Your task to perform on an android device: What's the weather going to be tomorrow? Image 0: 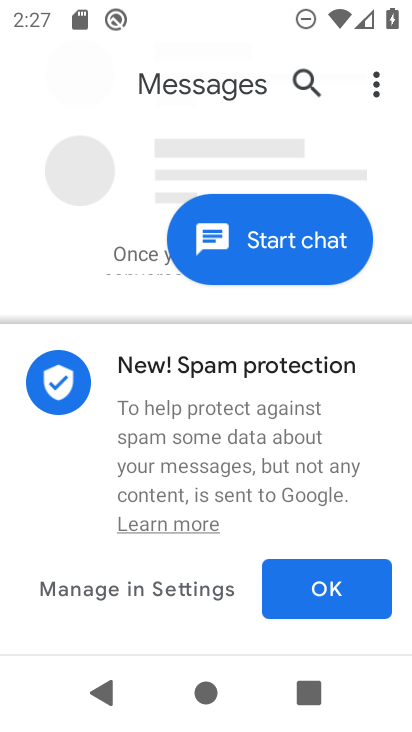
Step 0: press home button
Your task to perform on an android device: What's the weather going to be tomorrow? Image 1: 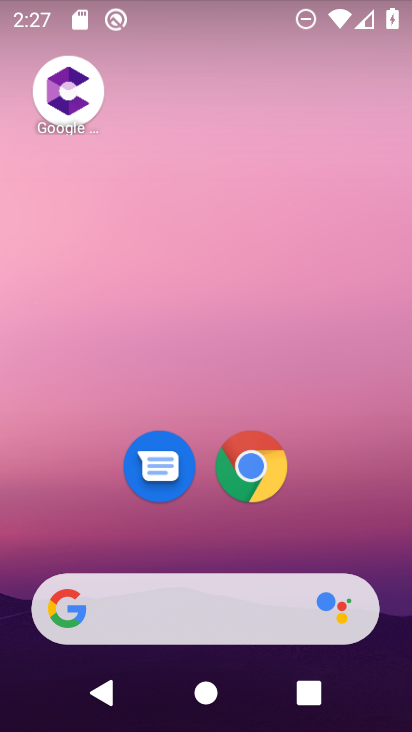
Step 1: drag from (182, 622) to (254, 378)
Your task to perform on an android device: What's the weather going to be tomorrow? Image 2: 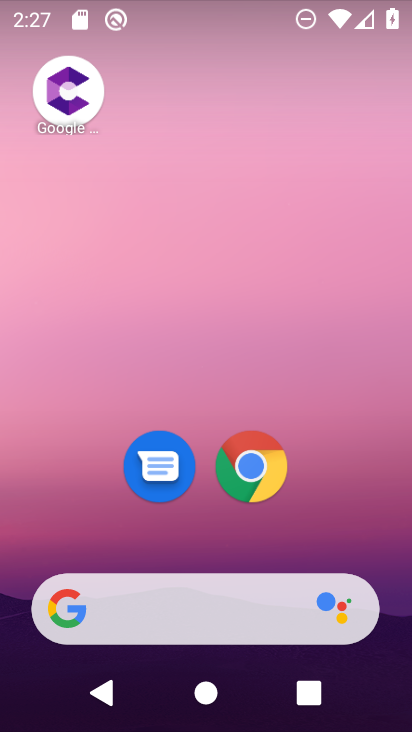
Step 2: drag from (193, 542) to (265, 82)
Your task to perform on an android device: What's the weather going to be tomorrow? Image 3: 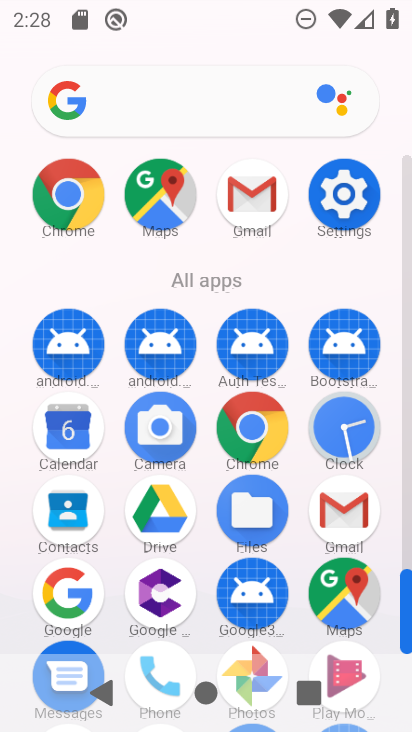
Step 3: click (157, 204)
Your task to perform on an android device: What's the weather going to be tomorrow? Image 4: 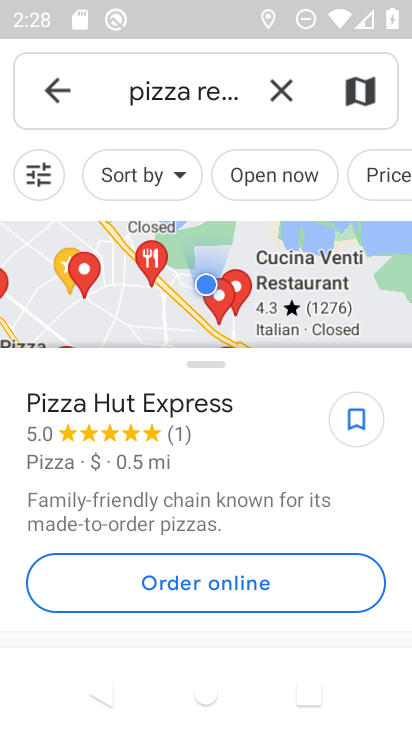
Step 4: click (276, 93)
Your task to perform on an android device: What's the weather going to be tomorrow? Image 5: 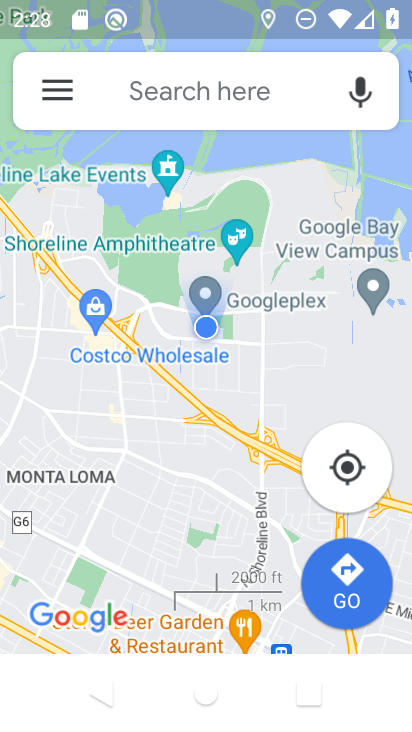
Step 5: click (216, 97)
Your task to perform on an android device: What's the weather going to be tomorrow? Image 6: 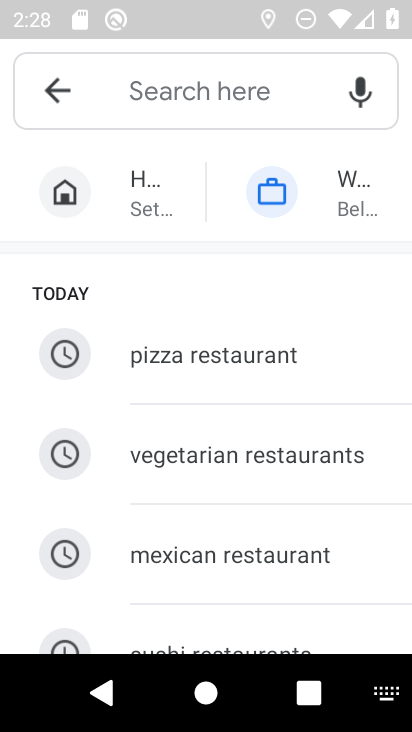
Step 6: press home button
Your task to perform on an android device: What's the weather going to be tomorrow? Image 7: 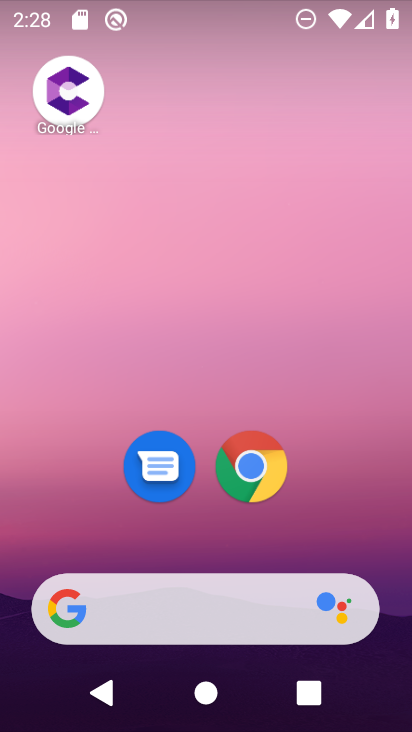
Step 7: drag from (225, 527) to (273, 304)
Your task to perform on an android device: What's the weather going to be tomorrow? Image 8: 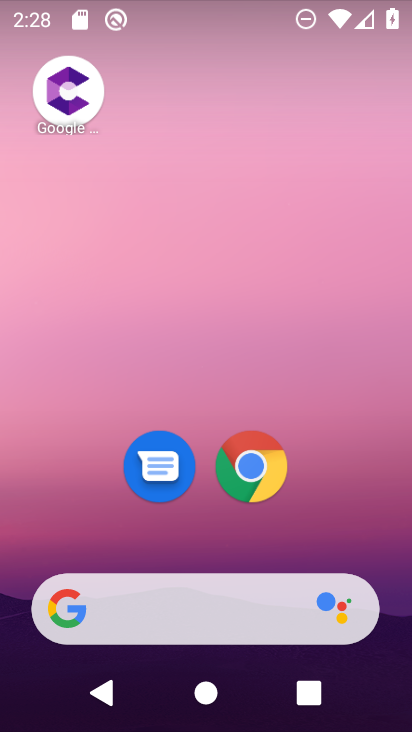
Step 8: drag from (214, 545) to (191, 27)
Your task to perform on an android device: What's the weather going to be tomorrow? Image 9: 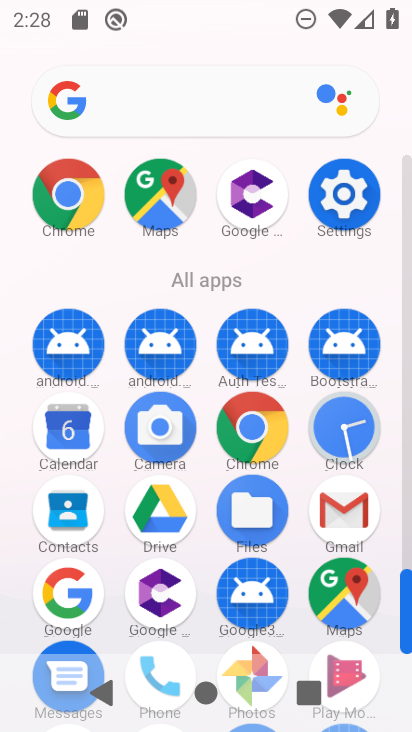
Step 9: click (160, 211)
Your task to perform on an android device: What's the weather going to be tomorrow? Image 10: 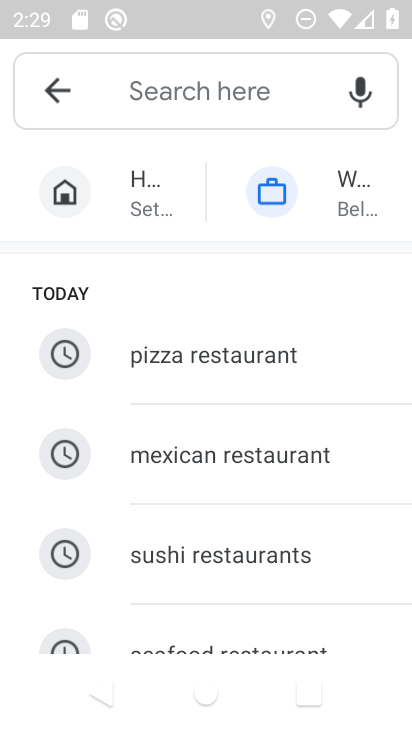
Step 10: press home button
Your task to perform on an android device: What's the weather going to be tomorrow? Image 11: 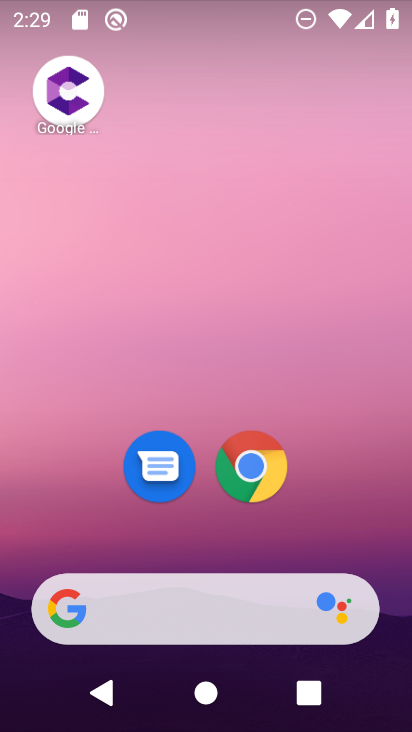
Step 11: click (182, 627)
Your task to perform on an android device: What's the weather going to be tomorrow? Image 12: 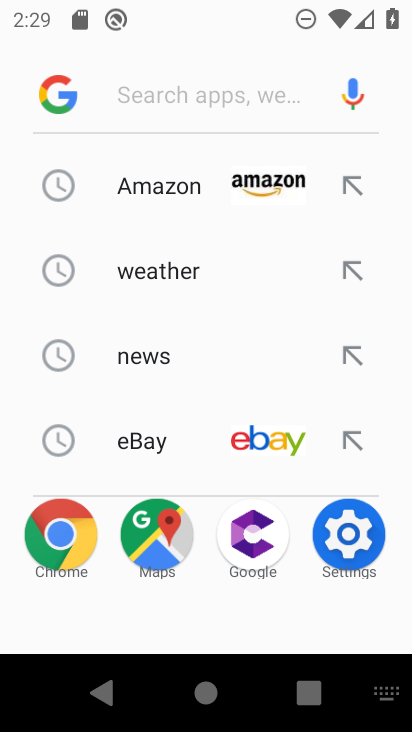
Step 12: click (143, 283)
Your task to perform on an android device: What's the weather going to be tomorrow? Image 13: 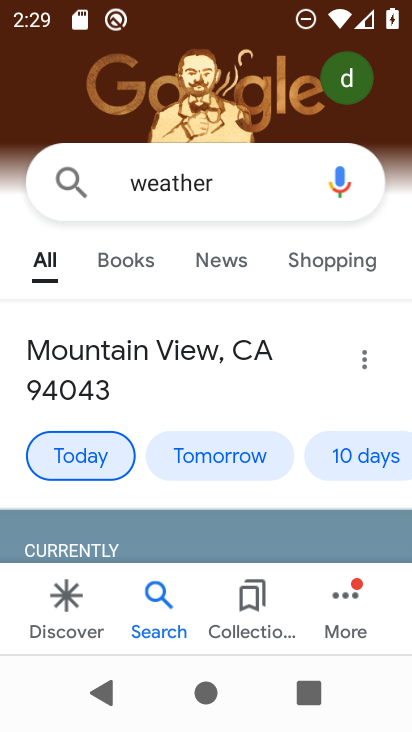
Step 13: task complete